Your task to perform on an android device: Play the last video I watched on Youtube Image 0: 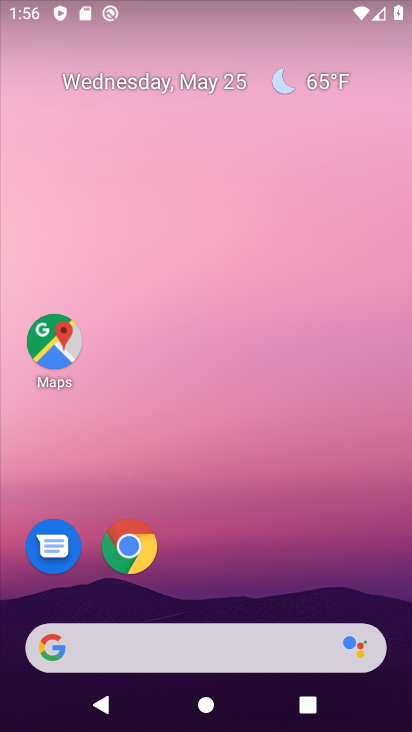
Step 0: drag from (253, 576) to (293, 116)
Your task to perform on an android device: Play the last video I watched on Youtube Image 1: 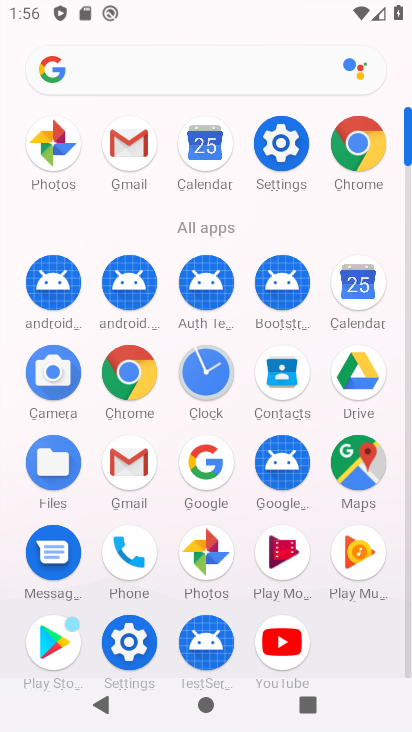
Step 1: click (283, 640)
Your task to perform on an android device: Play the last video I watched on Youtube Image 2: 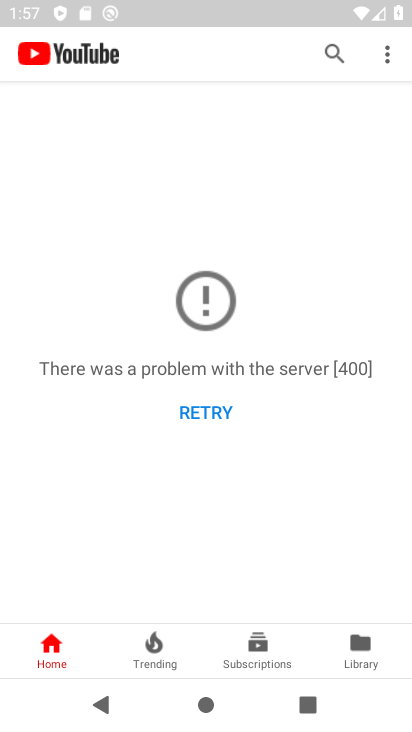
Step 2: click (201, 409)
Your task to perform on an android device: Play the last video I watched on Youtube Image 3: 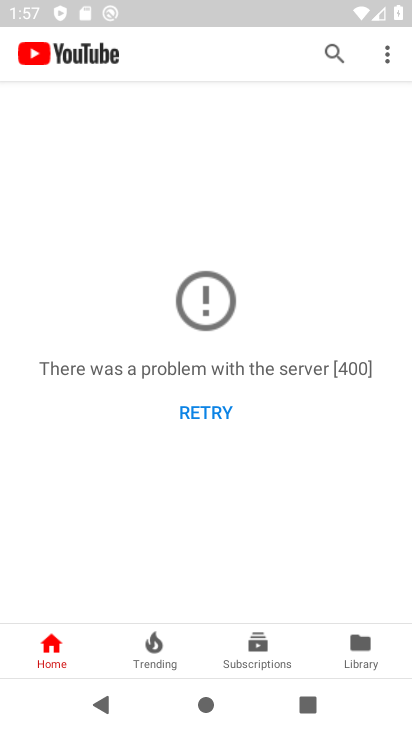
Step 3: task complete